Your task to perform on an android device: Open Google Maps Image 0: 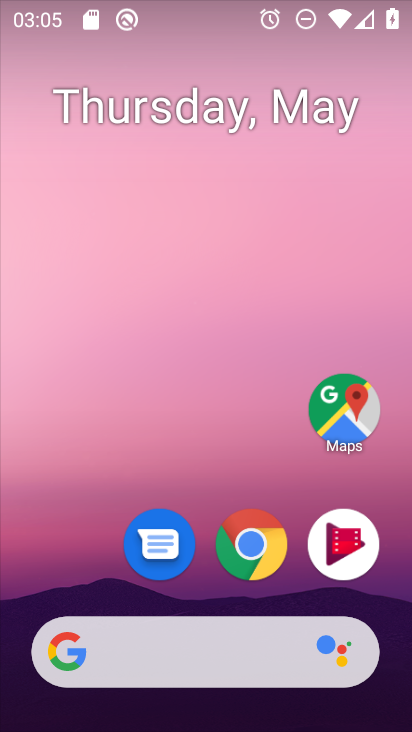
Step 0: drag from (52, 557) to (85, 180)
Your task to perform on an android device: Open Google Maps Image 1: 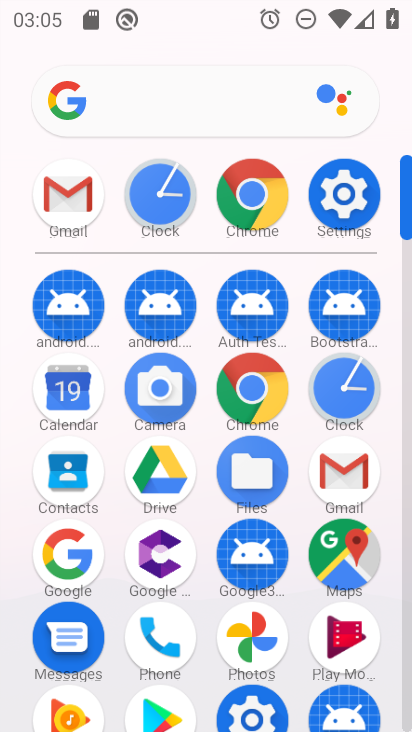
Step 1: click (367, 561)
Your task to perform on an android device: Open Google Maps Image 2: 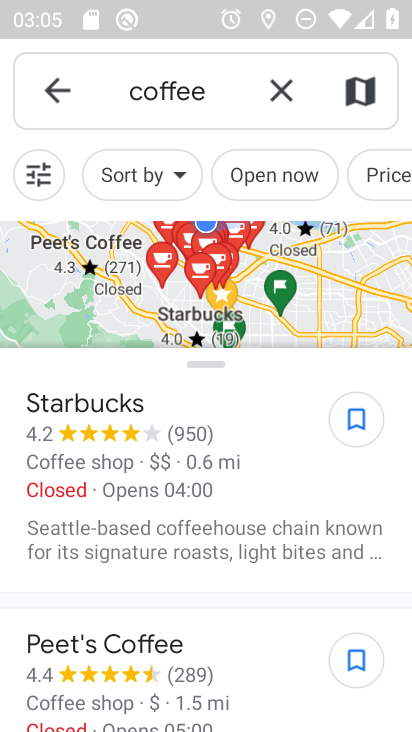
Step 2: task complete